Your task to perform on an android device: change text size in settings app Image 0: 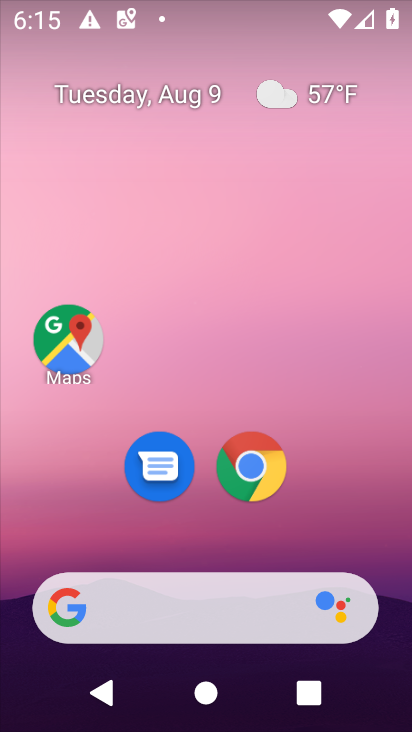
Step 0: drag from (189, 486) to (346, 45)
Your task to perform on an android device: change text size in settings app Image 1: 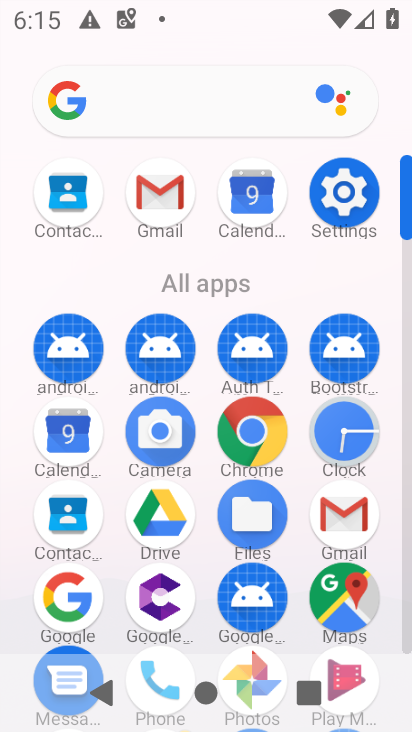
Step 1: click (354, 190)
Your task to perform on an android device: change text size in settings app Image 2: 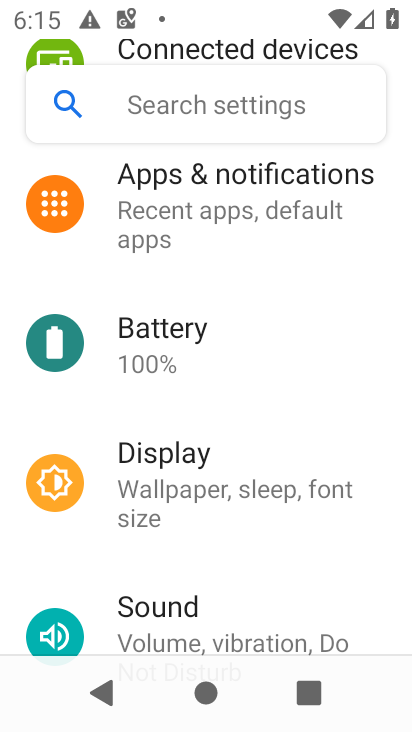
Step 2: click (203, 490)
Your task to perform on an android device: change text size in settings app Image 3: 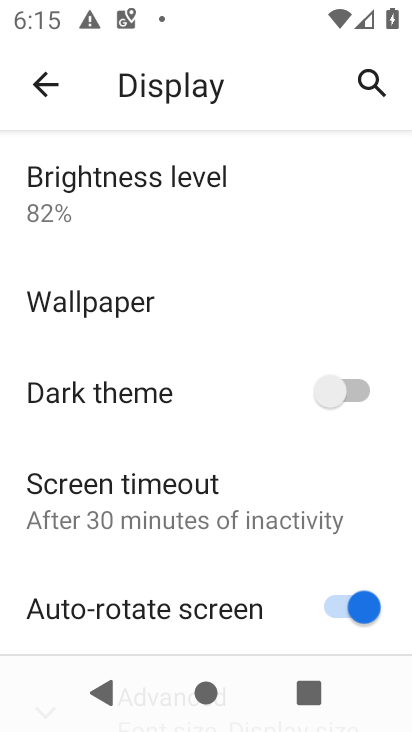
Step 3: drag from (166, 453) to (206, 181)
Your task to perform on an android device: change text size in settings app Image 4: 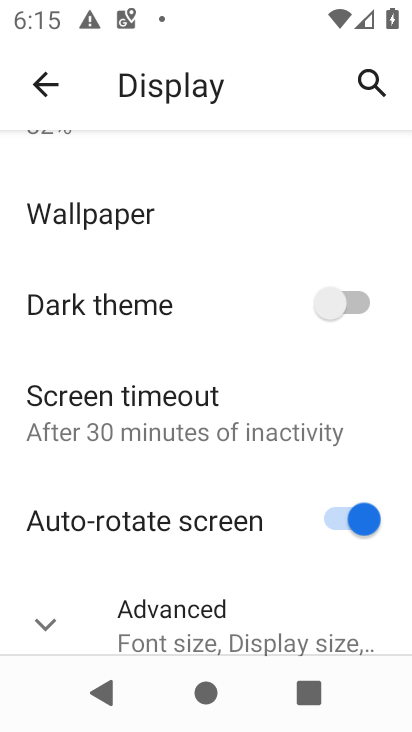
Step 4: click (192, 632)
Your task to perform on an android device: change text size in settings app Image 5: 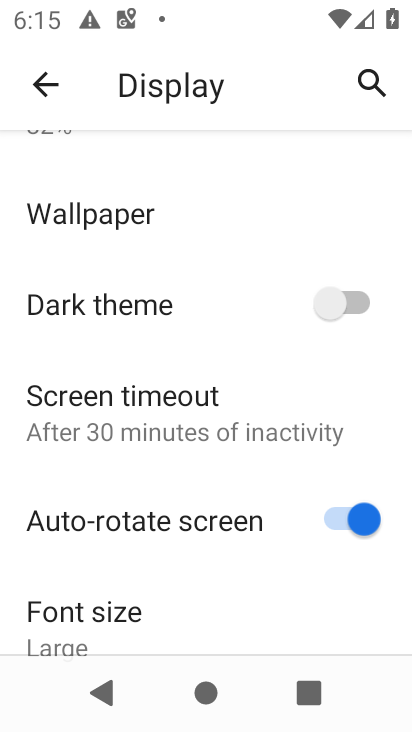
Step 5: drag from (226, 513) to (230, 349)
Your task to perform on an android device: change text size in settings app Image 6: 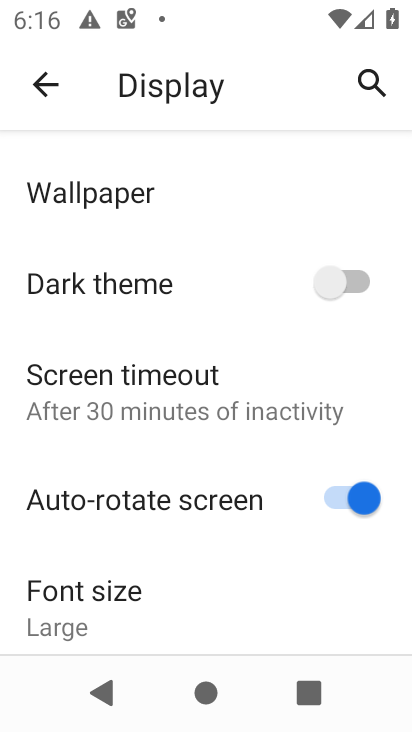
Step 6: drag from (183, 544) to (213, 256)
Your task to perform on an android device: change text size in settings app Image 7: 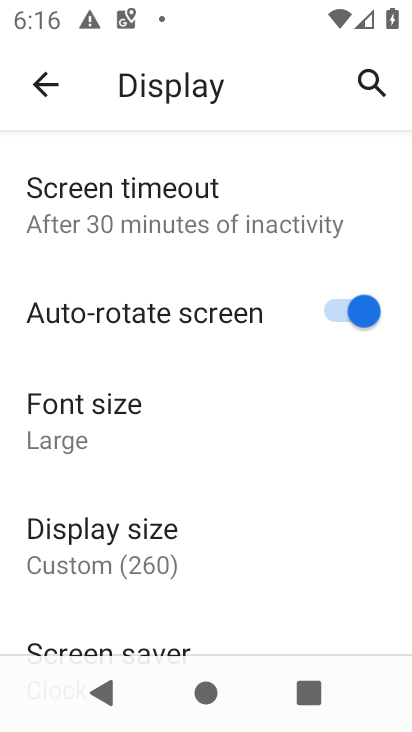
Step 7: click (99, 433)
Your task to perform on an android device: change text size in settings app Image 8: 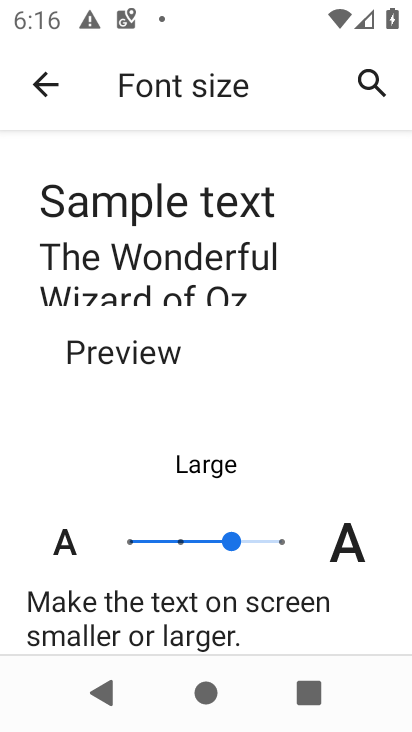
Step 8: click (181, 541)
Your task to perform on an android device: change text size in settings app Image 9: 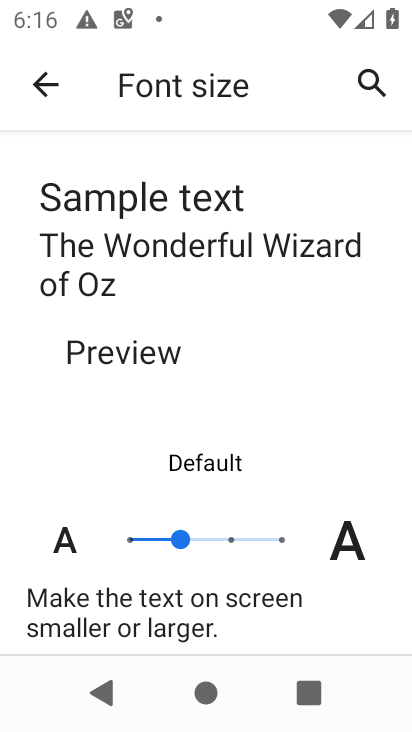
Step 9: task complete